Your task to perform on an android device: Open calendar and show me the first week of next month Image 0: 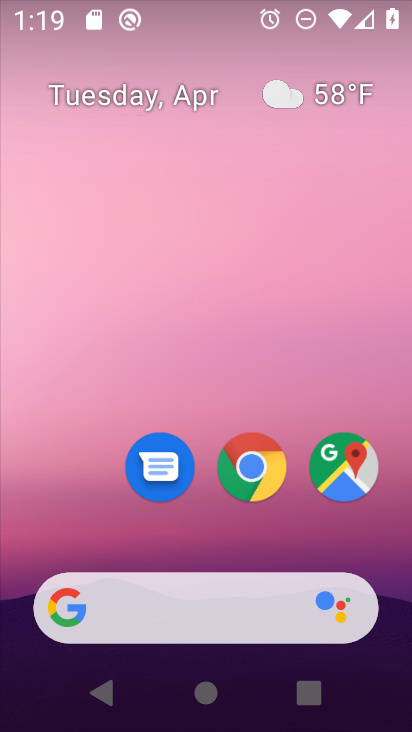
Step 0: click (142, 106)
Your task to perform on an android device: Open calendar and show me the first week of next month Image 1: 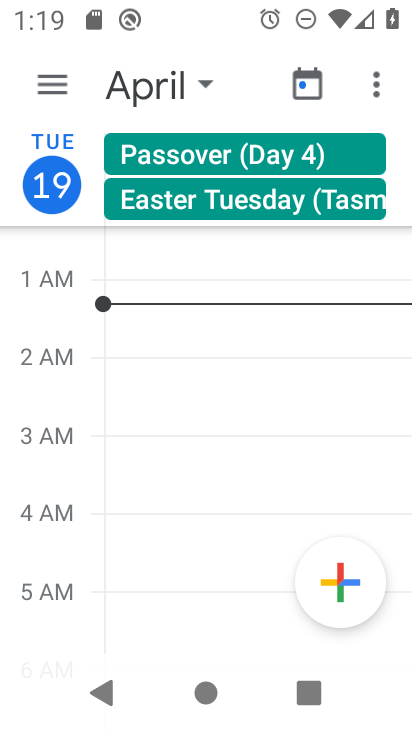
Step 1: click (142, 106)
Your task to perform on an android device: Open calendar and show me the first week of next month Image 2: 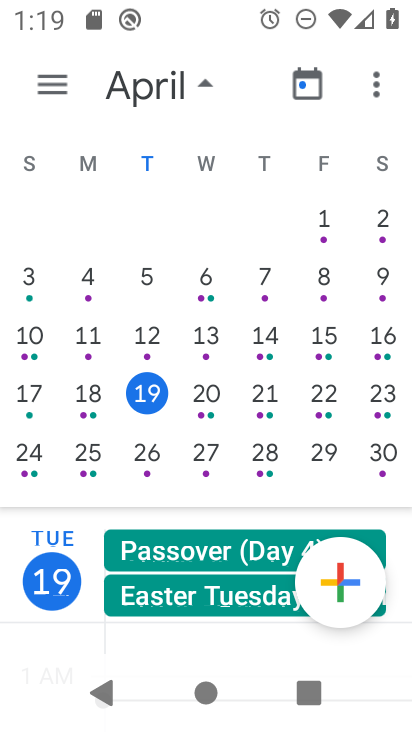
Step 2: task complete